Your task to perform on an android device: Go to privacy settings Image 0: 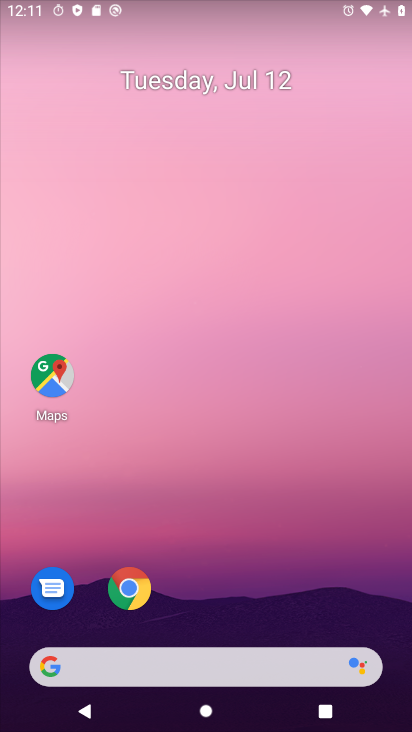
Step 0: drag from (169, 659) to (291, 198)
Your task to perform on an android device: Go to privacy settings Image 1: 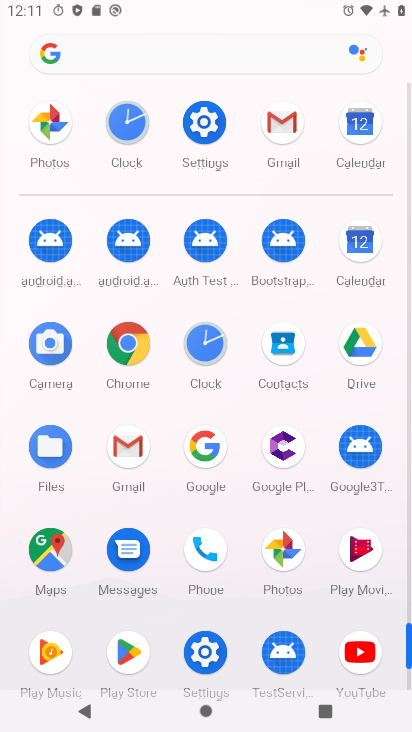
Step 1: click (199, 119)
Your task to perform on an android device: Go to privacy settings Image 2: 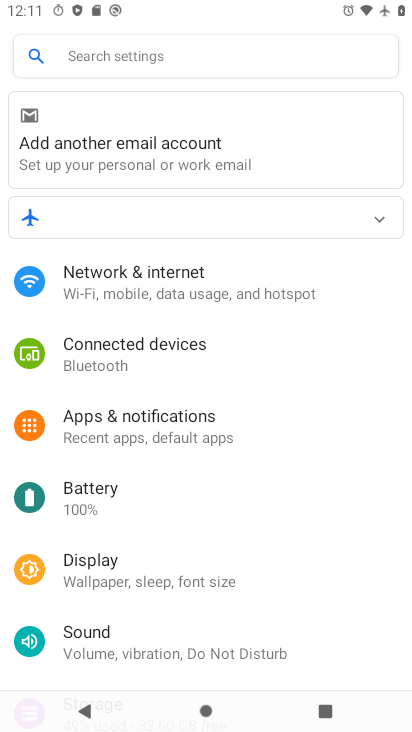
Step 2: drag from (204, 458) to (334, 103)
Your task to perform on an android device: Go to privacy settings Image 3: 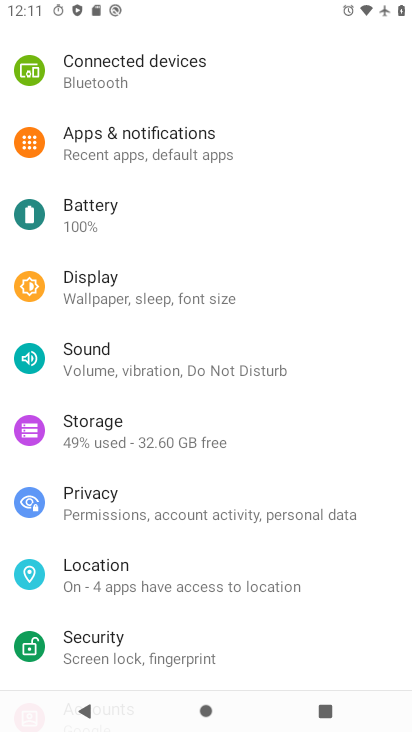
Step 3: click (145, 502)
Your task to perform on an android device: Go to privacy settings Image 4: 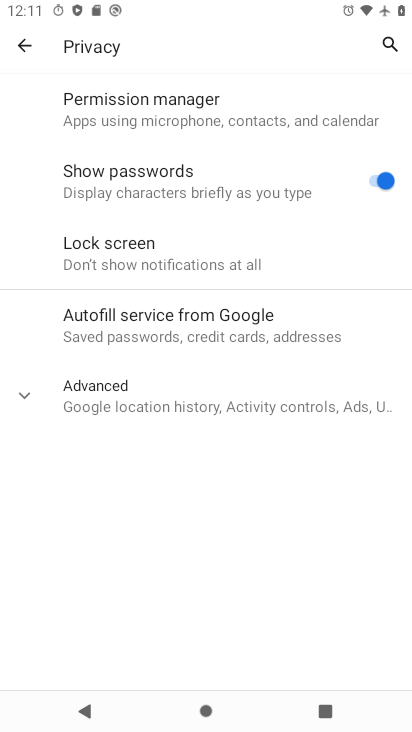
Step 4: task complete